Your task to perform on an android device: Go to settings Image 0: 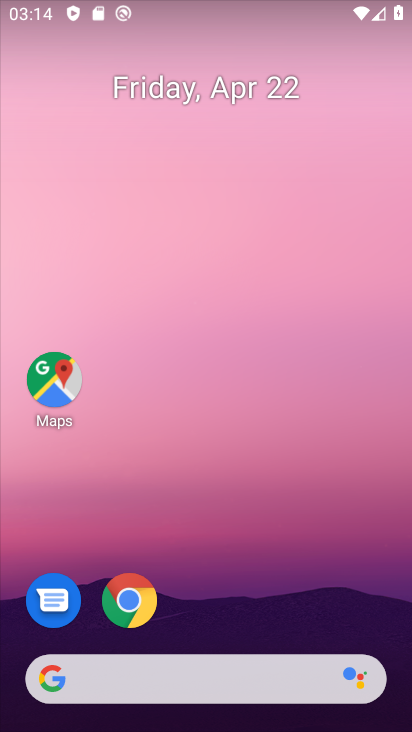
Step 0: drag from (324, 583) to (328, 102)
Your task to perform on an android device: Go to settings Image 1: 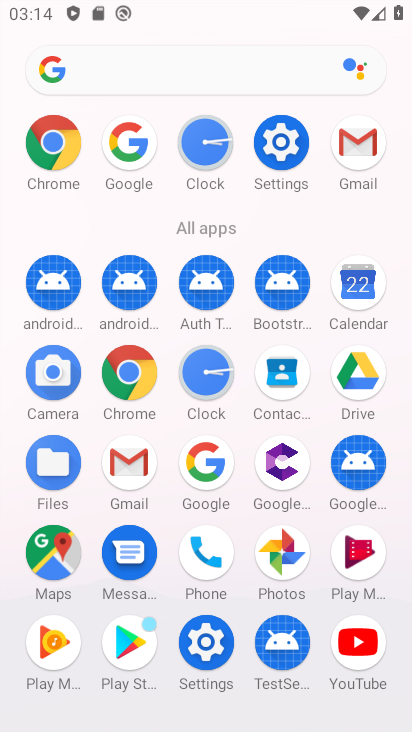
Step 1: click (273, 173)
Your task to perform on an android device: Go to settings Image 2: 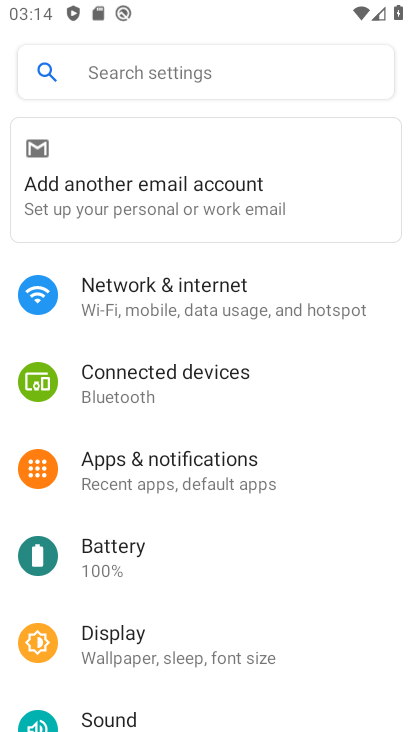
Step 2: task complete